Your task to perform on an android device: add a contact Image 0: 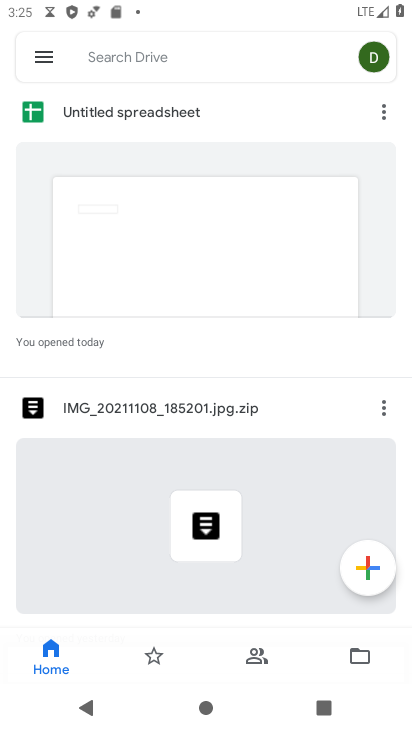
Step 0: press back button
Your task to perform on an android device: add a contact Image 1: 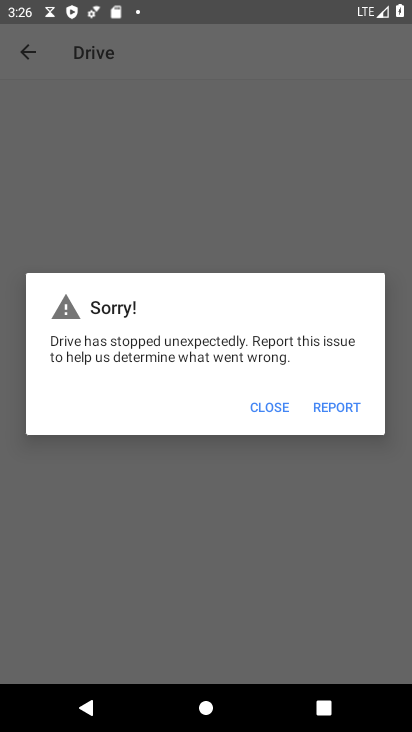
Step 1: press home button
Your task to perform on an android device: add a contact Image 2: 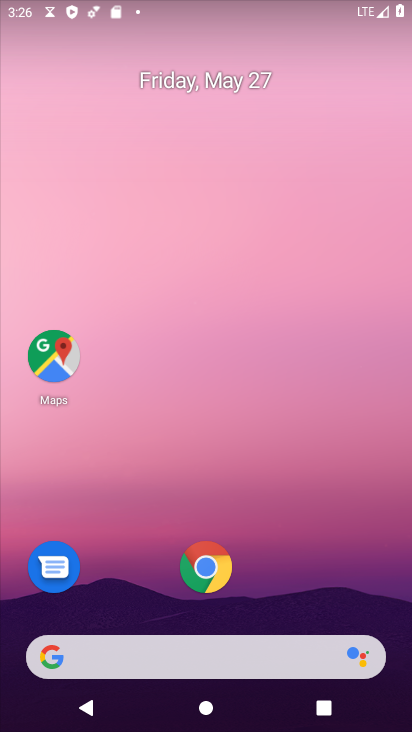
Step 2: drag from (136, 547) to (246, 142)
Your task to perform on an android device: add a contact Image 3: 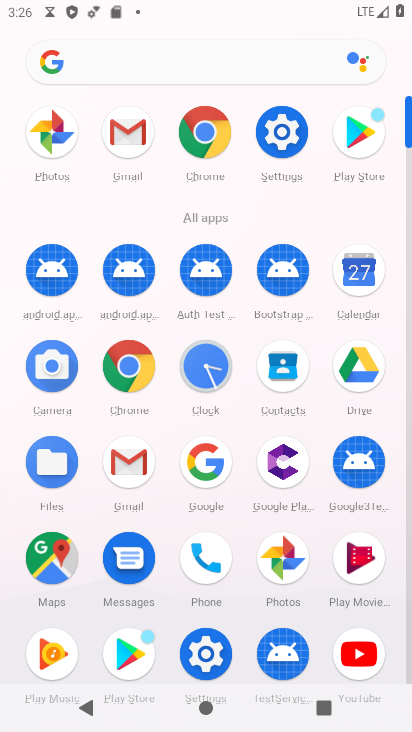
Step 3: click (281, 370)
Your task to perform on an android device: add a contact Image 4: 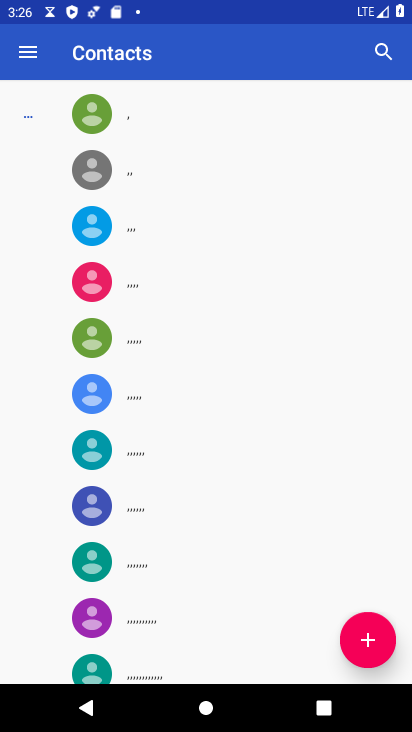
Step 4: click (347, 631)
Your task to perform on an android device: add a contact Image 5: 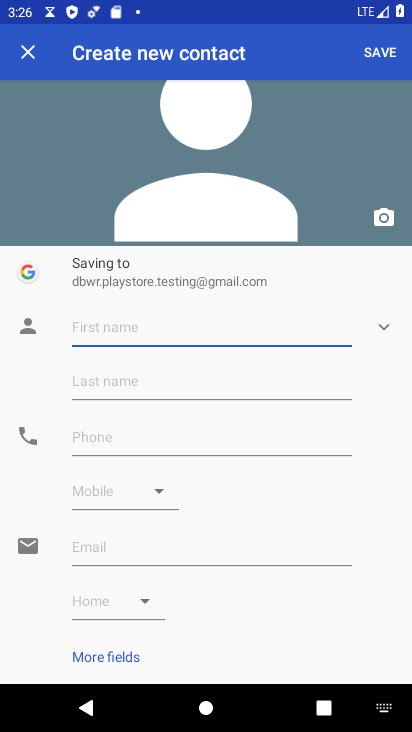
Step 5: click (103, 325)
Your task to perform on an android device: add a contact Image 6: 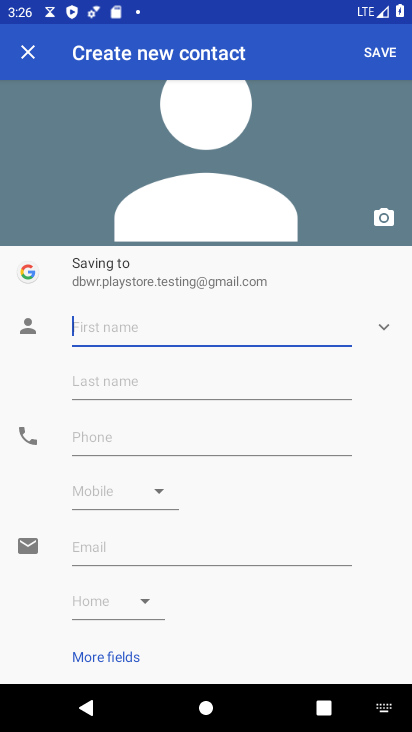
Step 6: type "ggbg"
Your task to perform on an android device: add a contact Image 7: 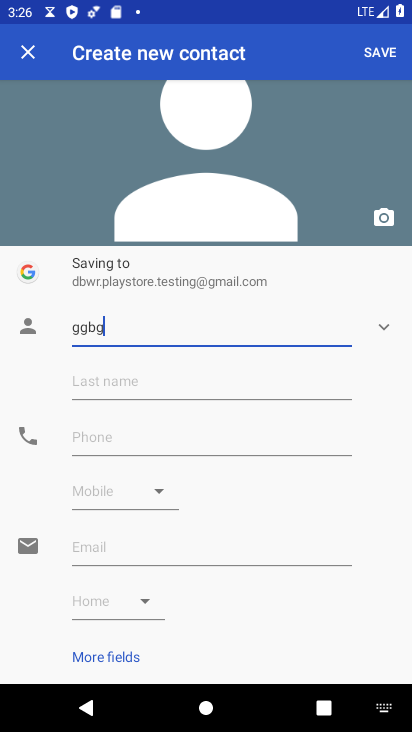
Step 7: click (142, 442)
Your task to perform on an android device: add a contact Image 8: 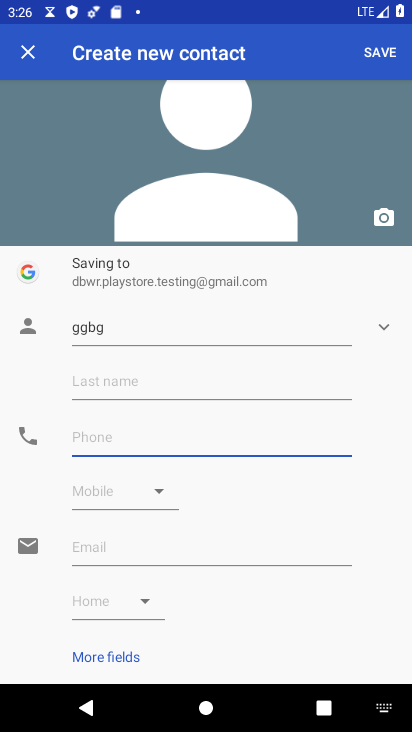
Step 8: type "7u668"
Your task to perform on an android device: add a contact Image 9: 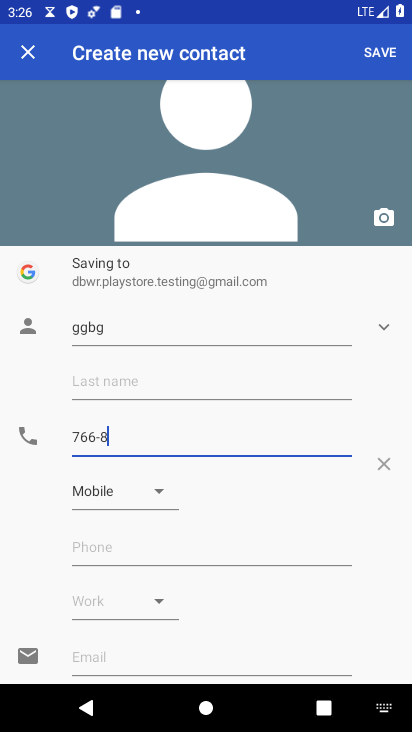
Step 9: click (362, 47)
Your task to perform on an android device: add a contact Image 10: 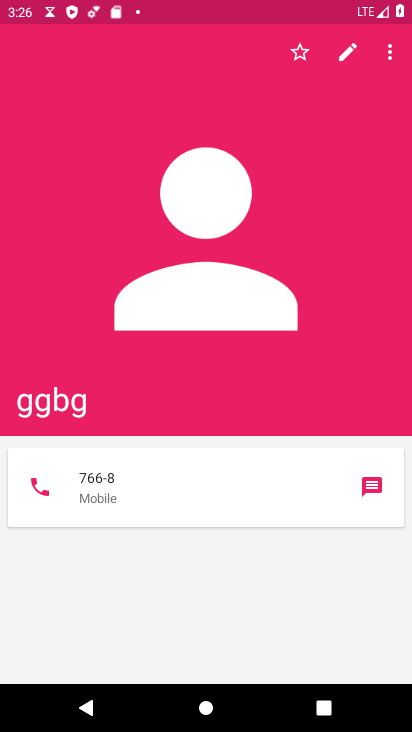
Step 10: task complete